Your task to perform on an android device: What's the weather going to be tomorrow? Image 0: 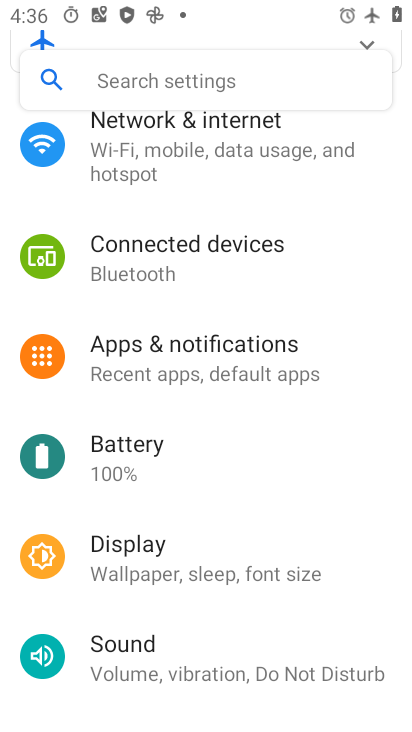
Step 0: press home button
Your task to perform on an android device: What's the weather going to be tomorrow? Image 1: 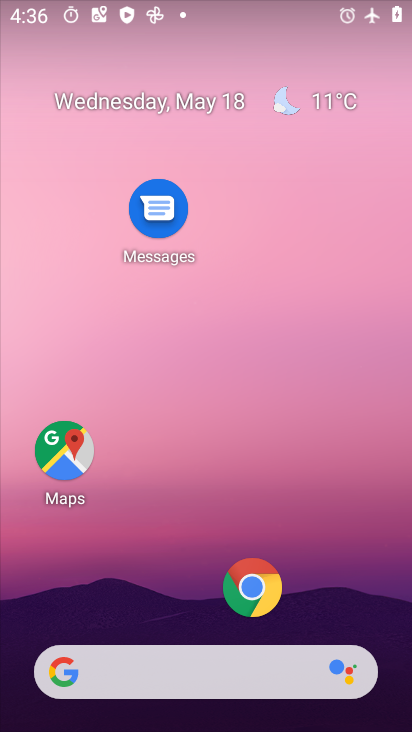
Step 1: drag from (365, 582) to (250, 53)
Your task to perform on an android device: What's the weather going to be tomorrow? Image 2: 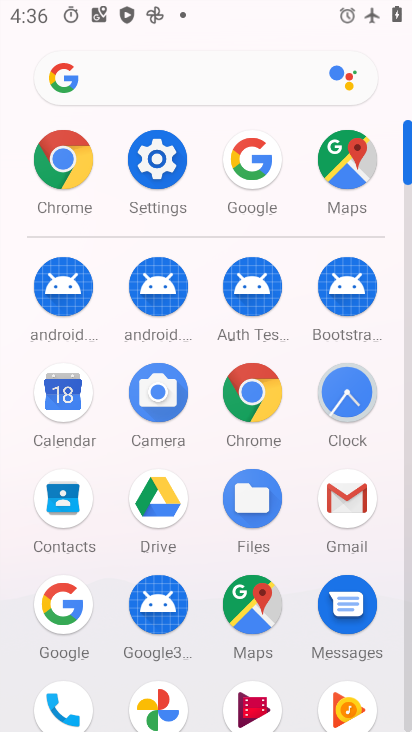
Step 2: drag from (315, 533) to (277, 220)
Your task to perform on an android device: What's the weather going to be tomorrow? Image 3: 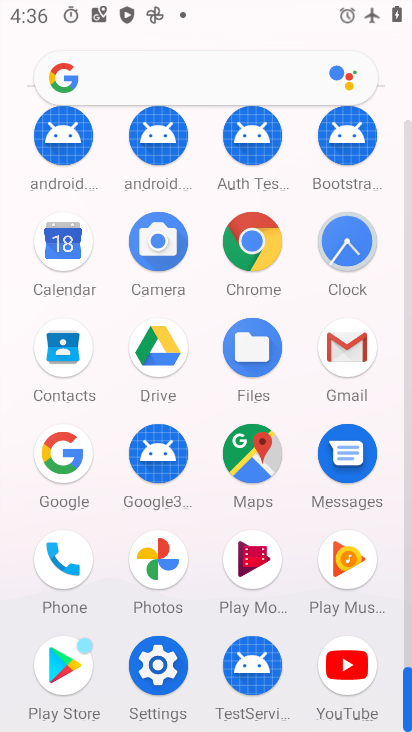
Step 3: click (61, 472)
Your task to perform on an android device: What's the weather going to be tomorrow? Image 4: 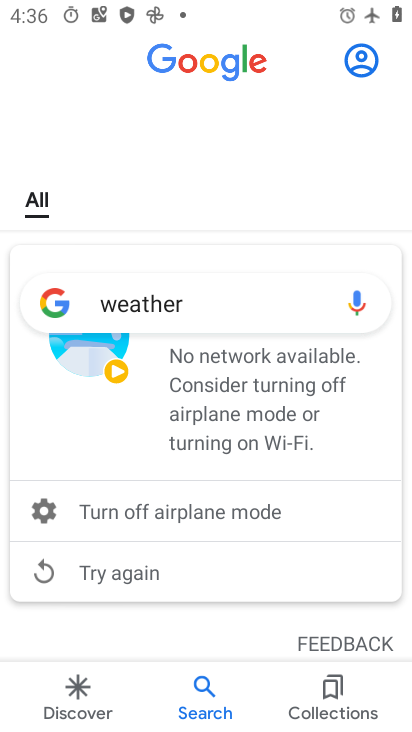
Step 4: task complete